Your task to perform on an android device: open a new tab in the chrome app Image 0: 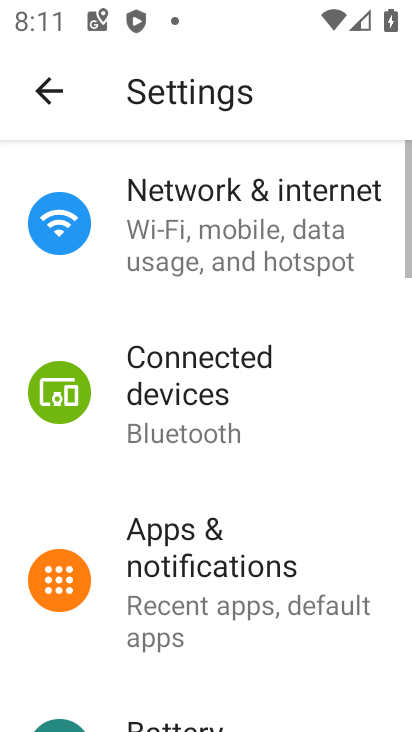
Step 0: press home button
Your task to perform on an android device: open a new tab in the chrome app Image 1: 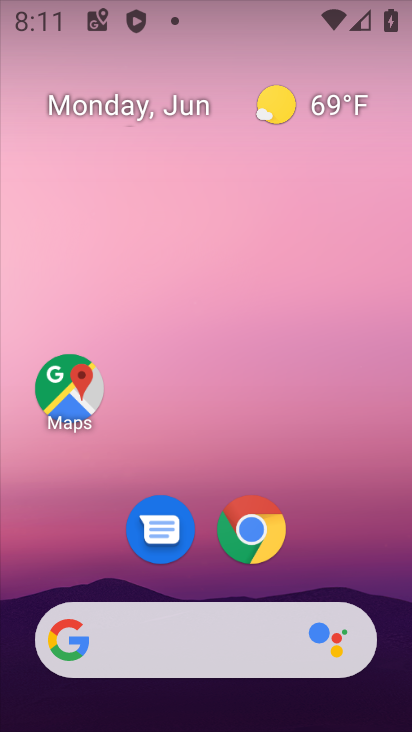
Step 1: click (245, 524)
Your task to perform on an android device: open a new tab in the chrome app Image 2: 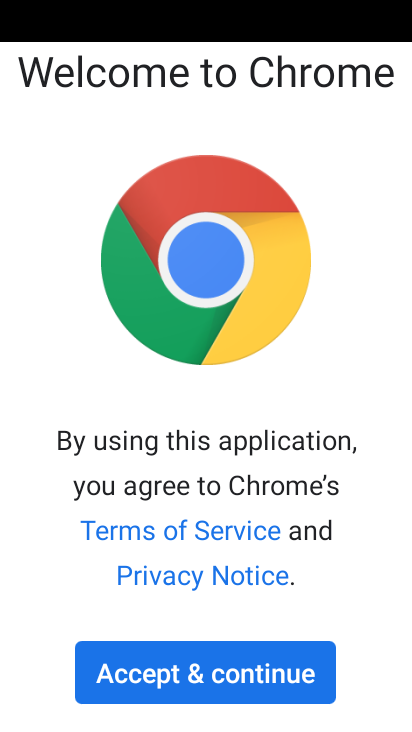
Step 2: click (241, 669)
Your task to perform on an android device: open a new tab in the chrome app Image 3: 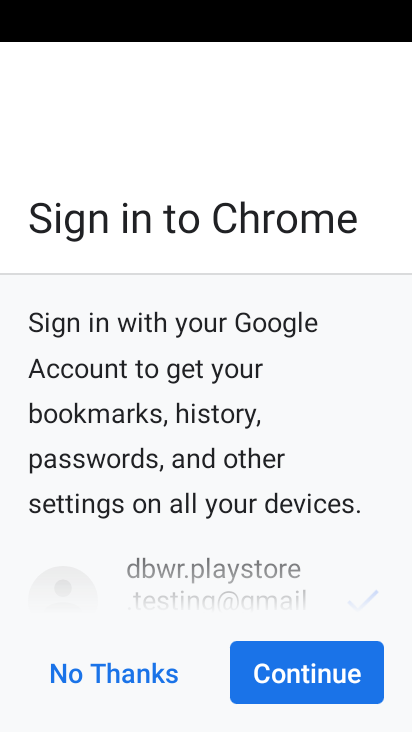
Step 3: click (241, 669)
Your task to perform on an android device: open a new tab in the chrome app Image 4: 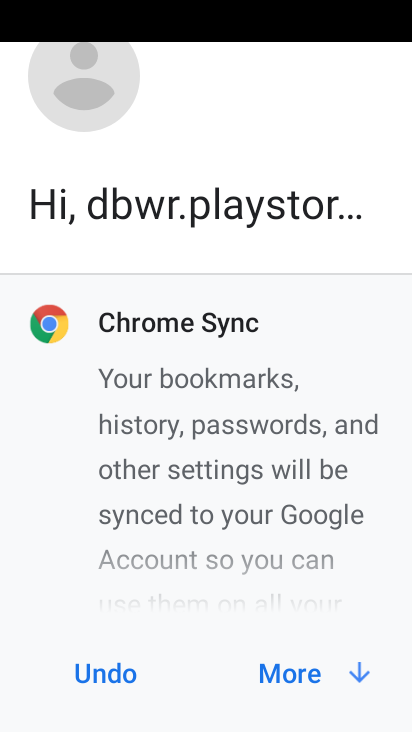
Step 4: click (267, 671)
Your task to perform on an android device: open a new tab in the chrome app Image 5: 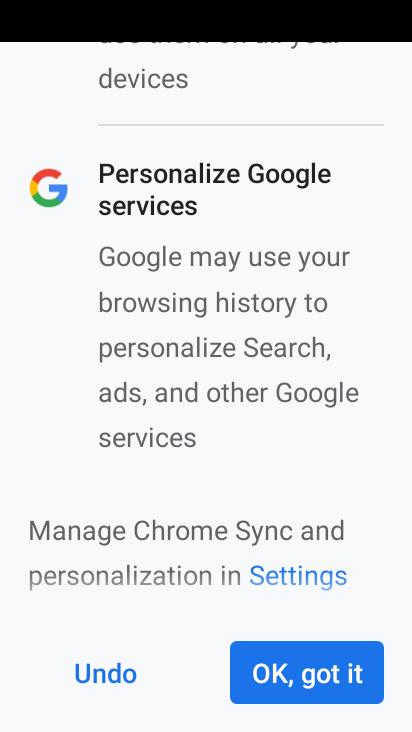
Step 5: click (267, 671)
Your task to perform on an android device: open a new tab in the chrome app Image 6: 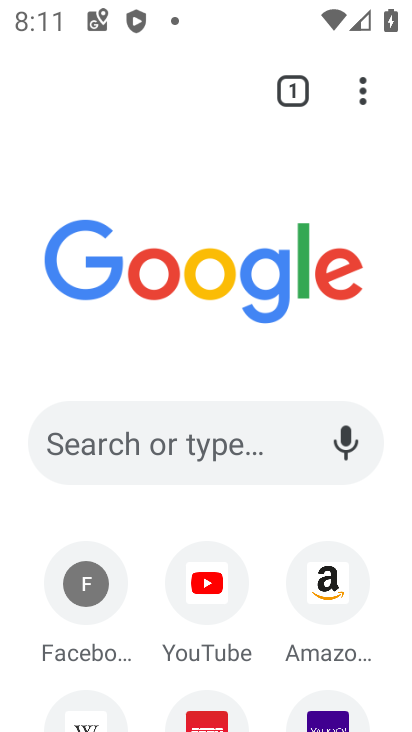
Step 6: click (358, 82)
Your task to perform on an android device: open a new tab in the chrome app Image 7: 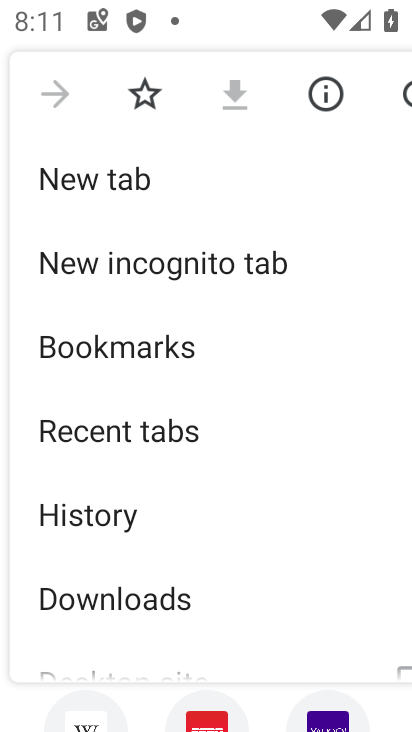
Step 7: click (160, 185)
Your task to perform on an android device: open a new tab in the chrome app Image 8: 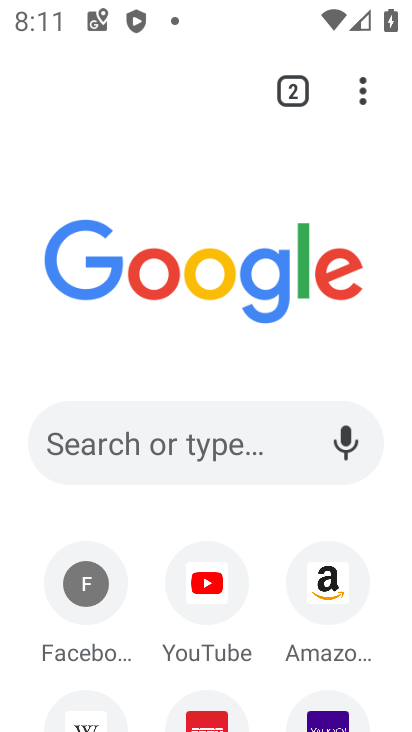
Step 8: task complete